Your task to perform on an android device: read, delete, or share a saved page in the chrome app Image 0: 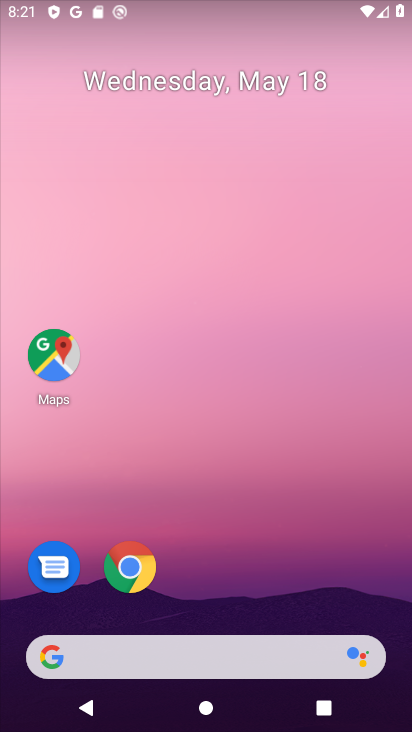
Step 0: drag from (233, 538) to (221, 74)
Your task to perform on an android device: read, delete, or share a saved page in the chrome app Image 1: 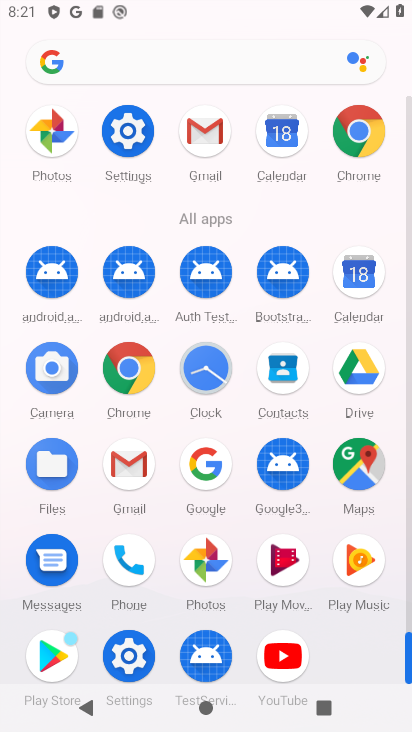
Step 1: drag from (11, 548) to (25, 295)
Your task to perform on an android device: read, delete, or share a saved page in the chrome app Image 2: 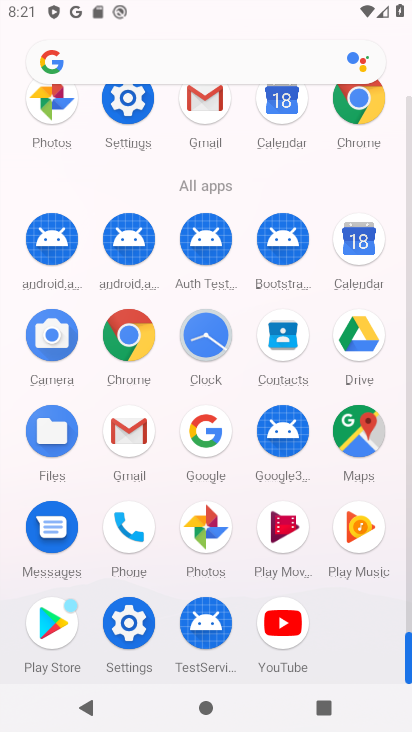
Step 2: click (124, 332)
Your task to perform on an android device: read, delete, or share a saved page in the chrome app Image 3: 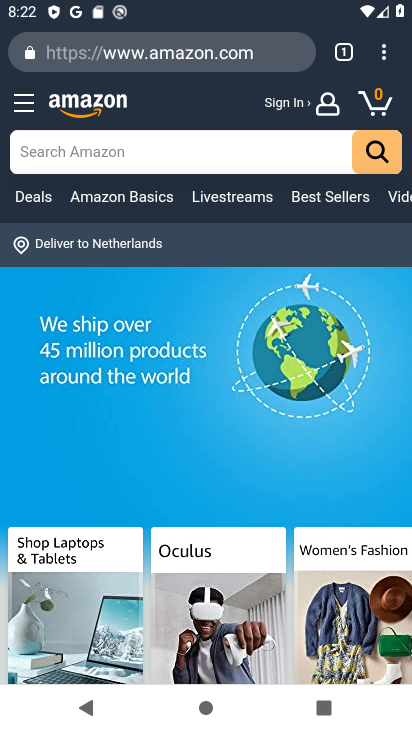
Step 3: task complete